Your task to perform on an android device: clear all cookies in the chrome app Image 0: 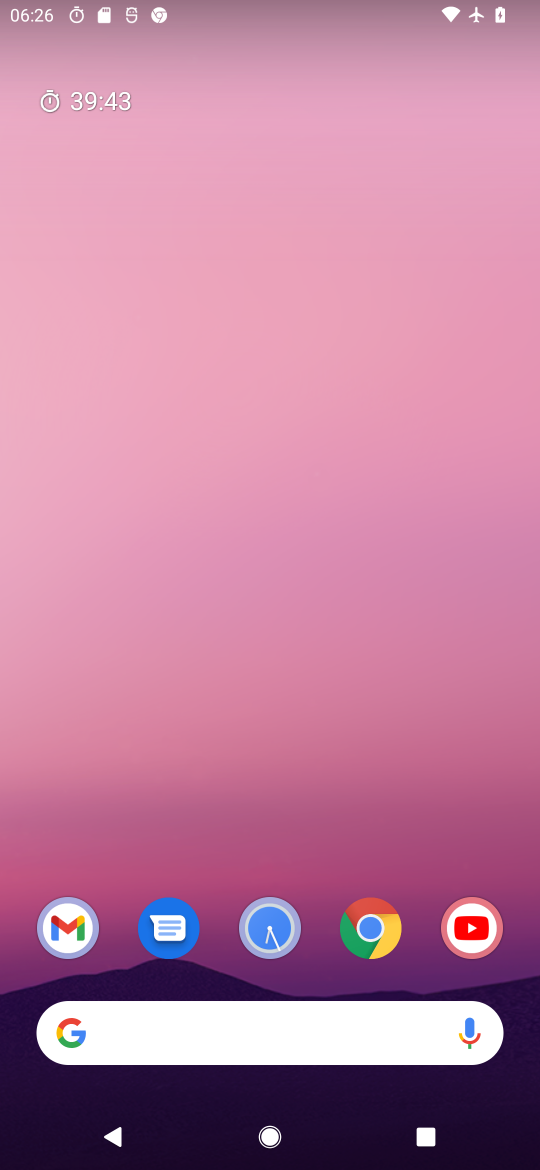
Step 0: click (362, 933)
Your task to perform on an android device: clear all cookies in the chrome app Image 1: 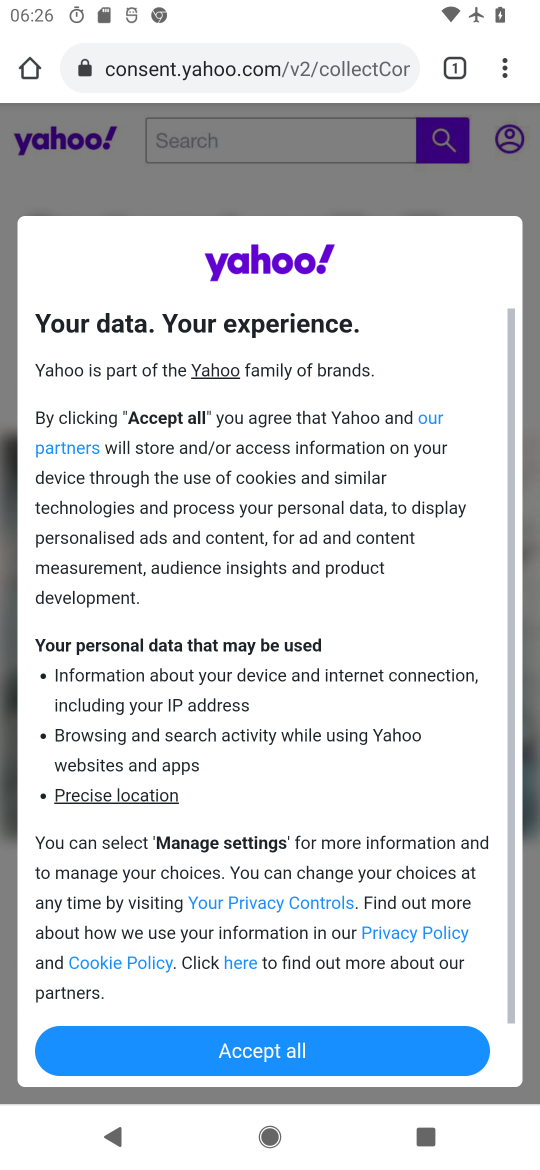
Step 1: click (500, 91)
Your task to perform on an android device: clear all cookies in the chrome app Image 2: 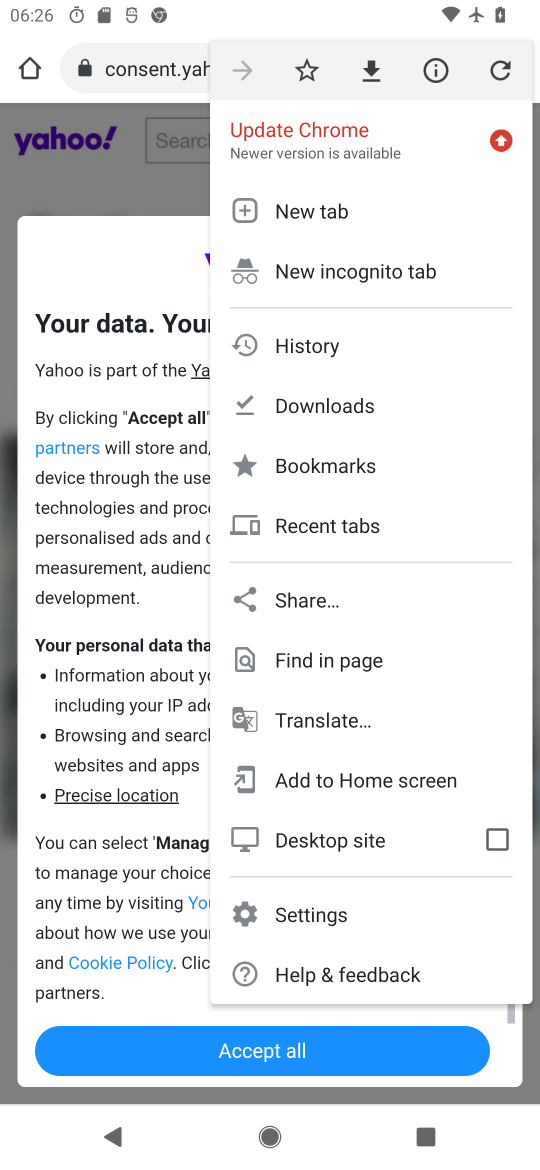
Step 2: click (324, 349)
Your task to perform on an android device: clear all cookies in the chrome app Image 3: 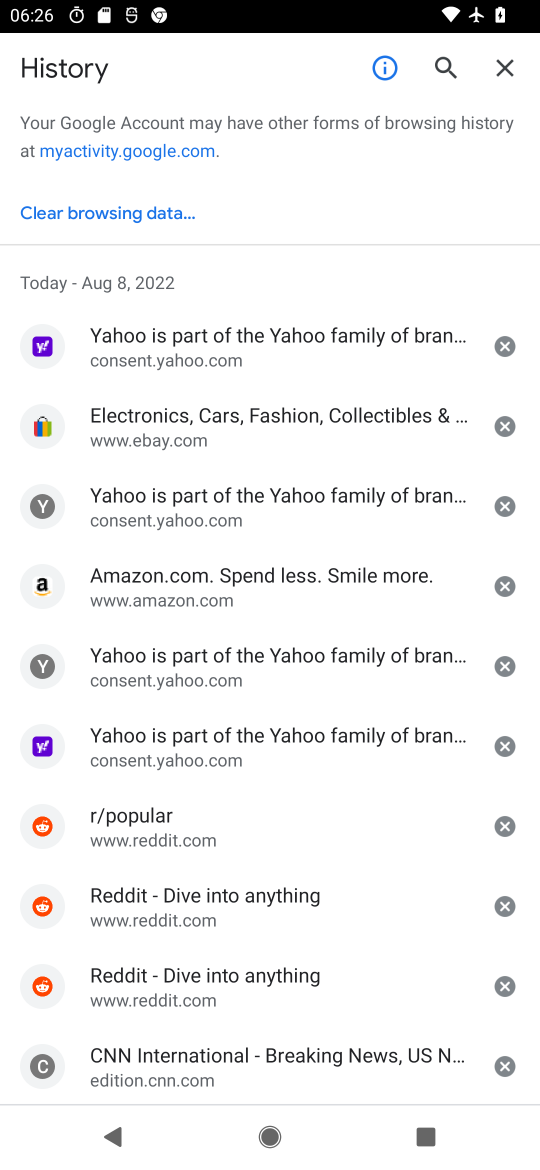
Step 3: click (110, 211)
Your task to perform on an android device: clear all cookies in the chrome app Image 4: 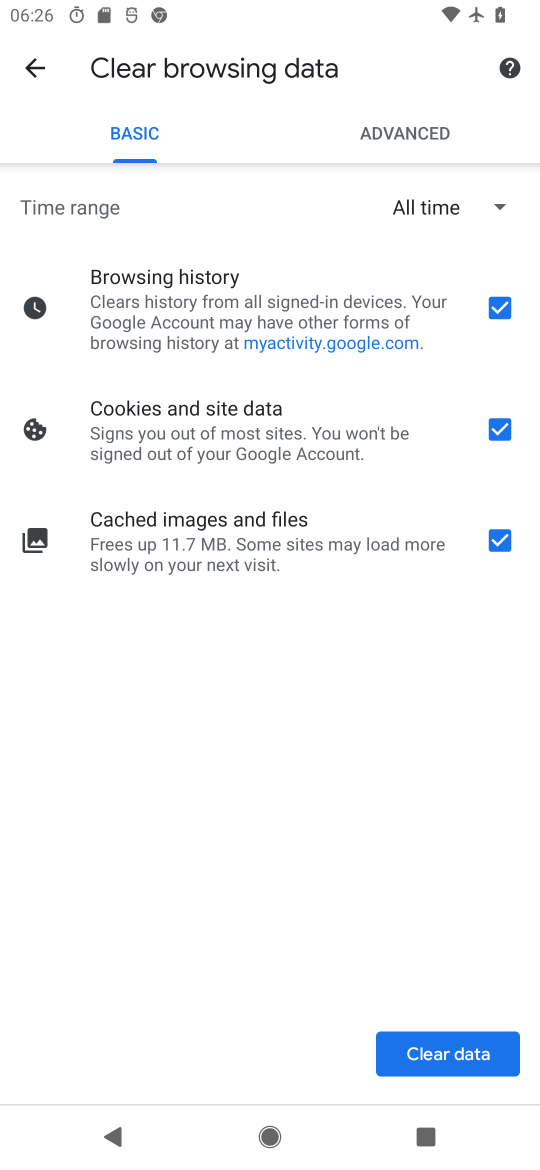
Step 4: click (470, 299)
Your task to perform on an android device: clear all cookies in the chrome app Image 5: 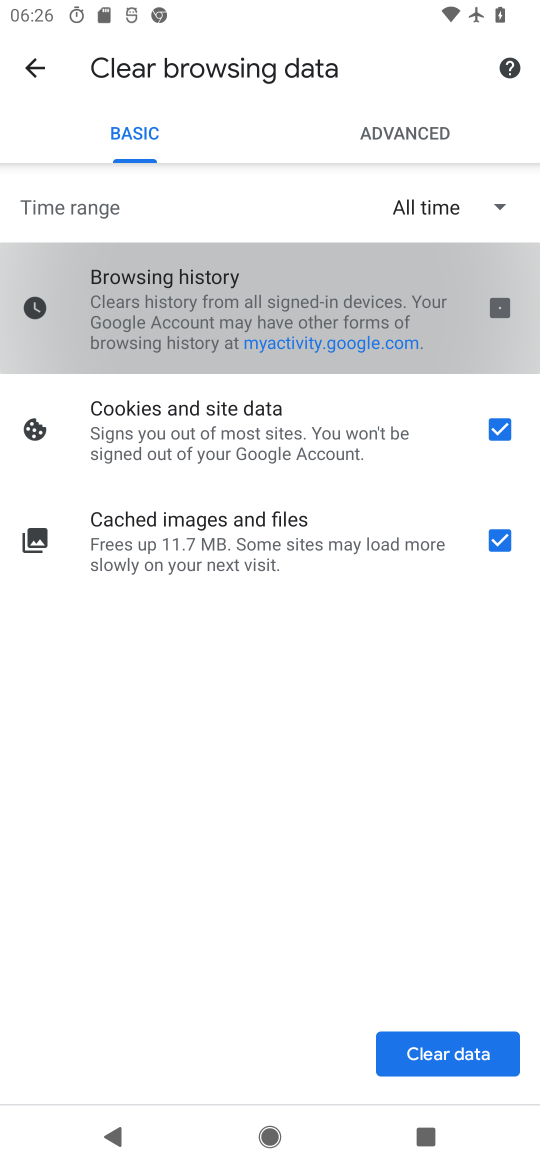
Step 5: click (448, 542)
Your task to perform on an android device: clear all cookies in the chrome app Image 6: 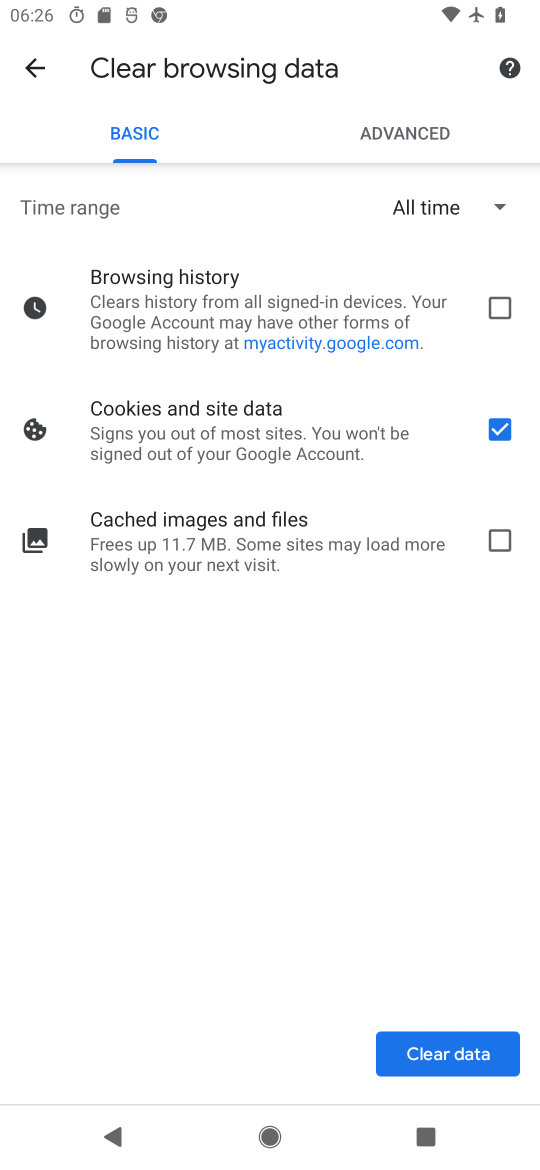
Step 6: click (446, 1049)
Your task to perform on an android device: clear all cookies in the chrome app Image 7: 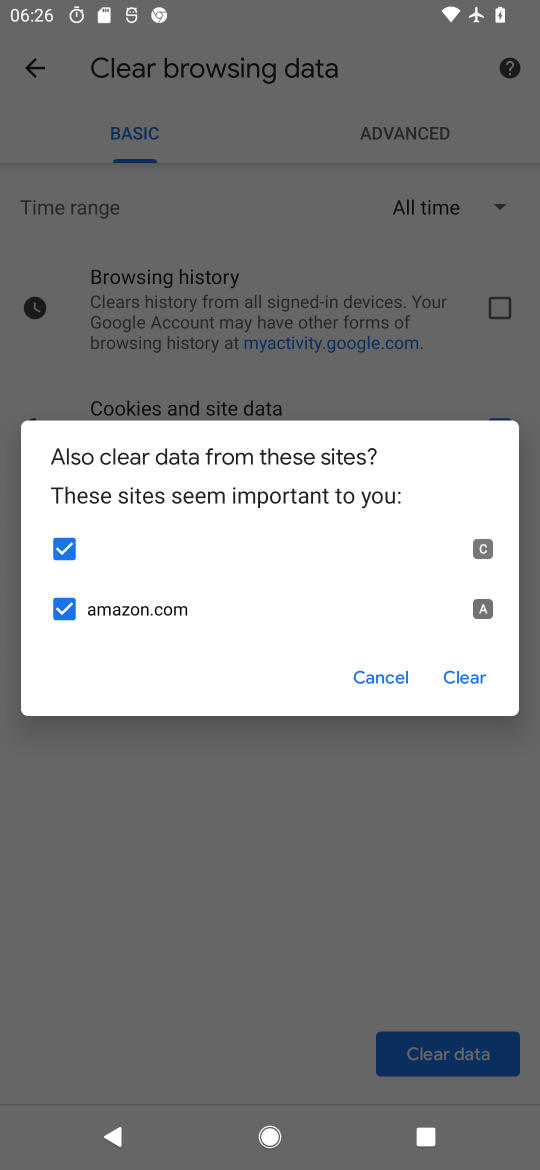
Step 7: click (463, 679)
Your task to perform on an android device: clear all cookies in the chrome app Image 8: 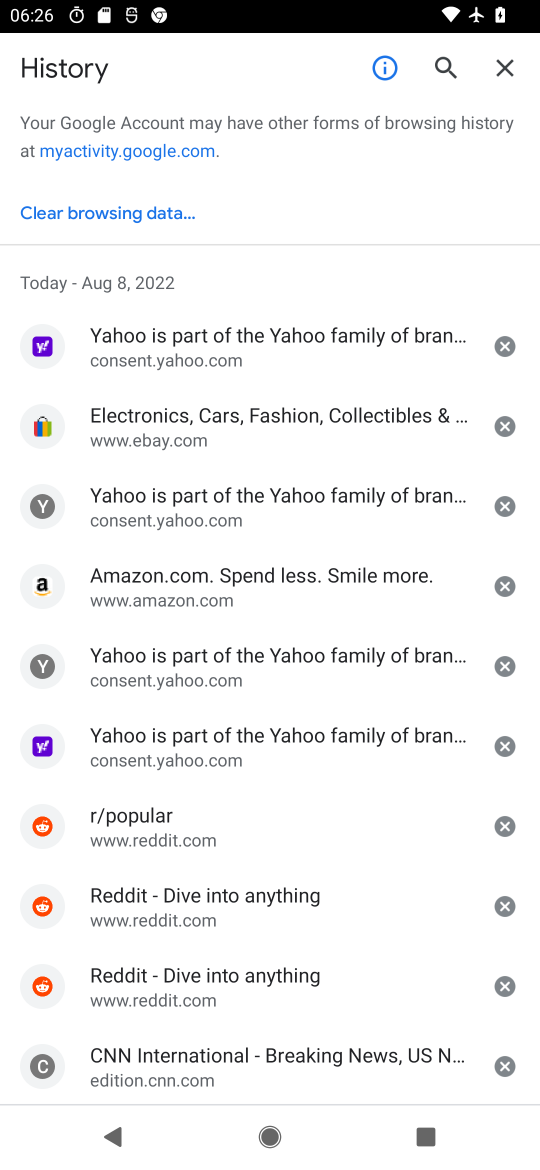
Step 8: task complete